Your task to perform on an android device: Open Google Image 0: 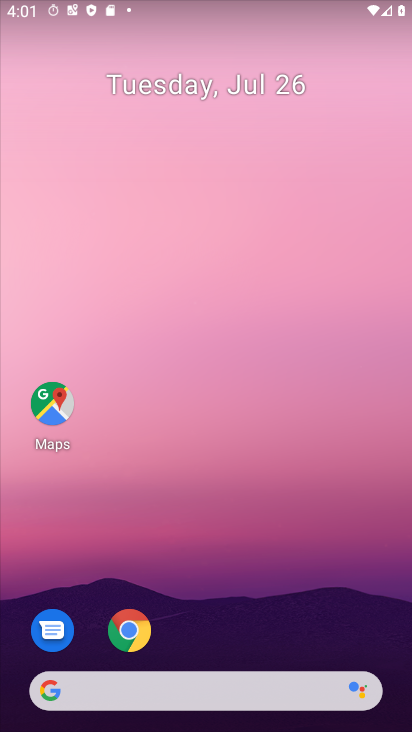
Step 0: drag from (232, 615) to (133, 46)
Your task to perform on an android device: Open Google Image 1: 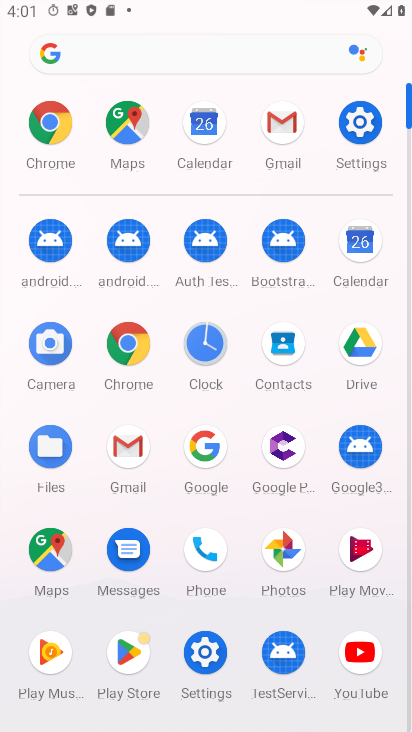
Step 1: click (196, 454)
Your task to perform on an android device: Open Google Image 2: 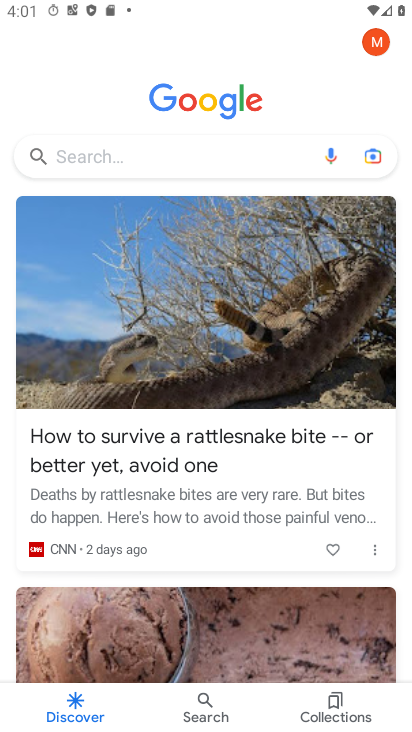
Step 2: task complete